Your task to perform on an android device: delete browsing data in the chrome app Image 0: 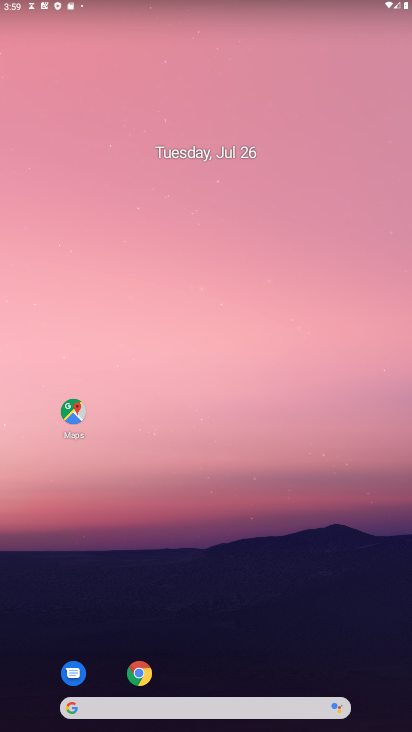
Step 0: click (139, 674)
Your task to perform on an android device: delete browsing data in the chrome app Image 1: 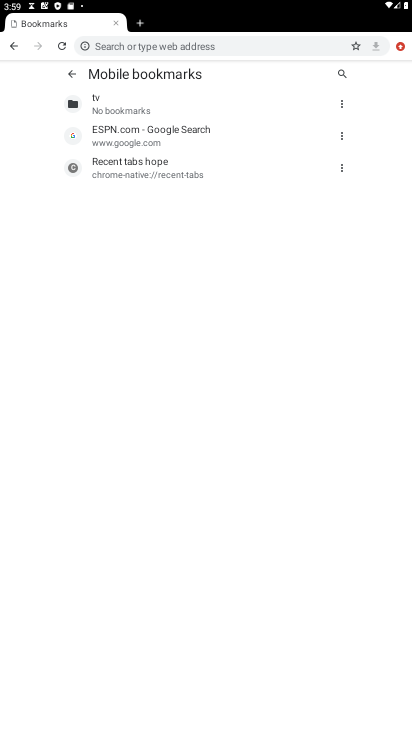
Step 1: click (400, 47)
Your task to perform on an android device: delete browsing data in the chrome app Image 2: 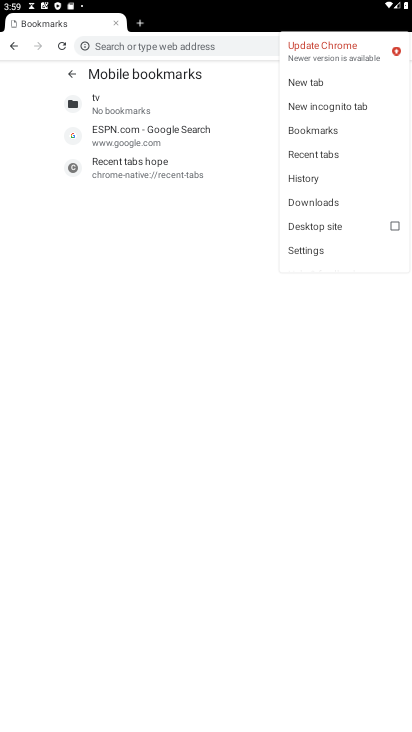
Step 2: click (313, 251)
Your task to perform on an android device: delete browsing data in the chrome app Image 3: 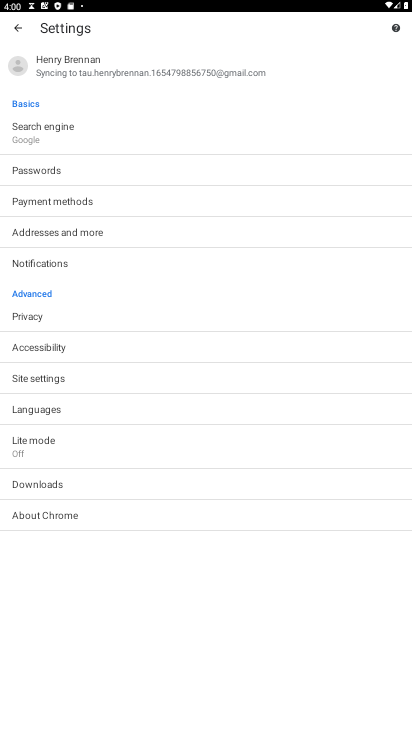
Step 3: click (29, 314)
Your task to perform on an android device: delete browsing data in the chrome app Image 4: 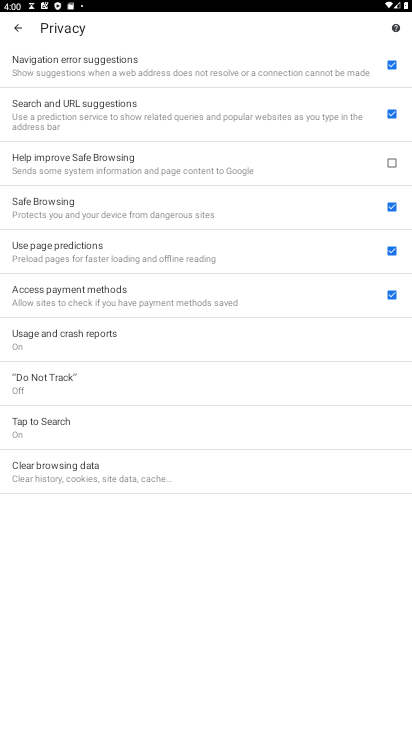
Step 4: click (66, 471)
Your task to perform on an android device: delete browsing data in the chrome app Image 5: 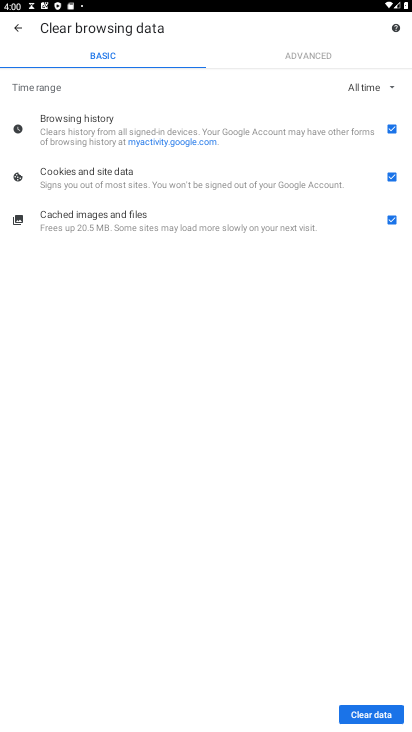
Step 5: click (376, 714)
Your task to perform on an android device: delete browsing data in the chrome app Image 6: 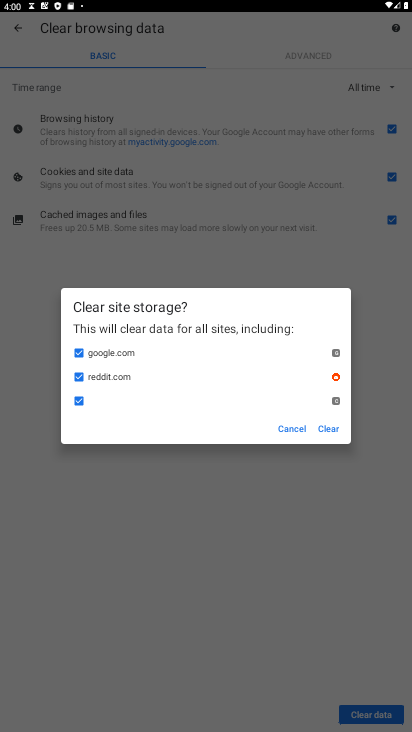
Step 6: click (329, 430)
Your task to perform on an android device: delete browsing data in the chrome app Image 7: 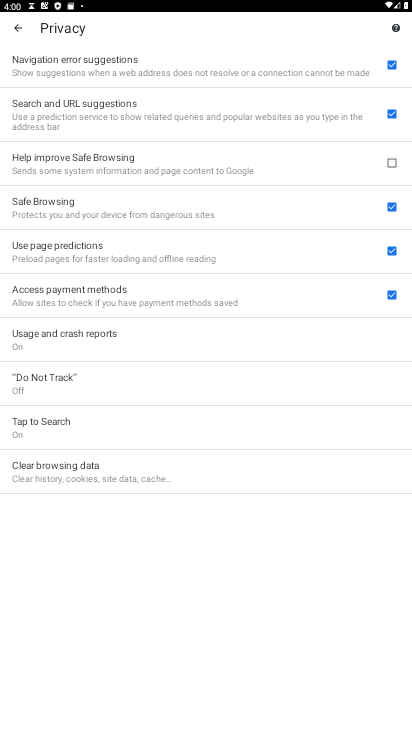
Step 7: task complete